Your task to perform on an android device: turn off notifications settings in the gmail app Image 0: 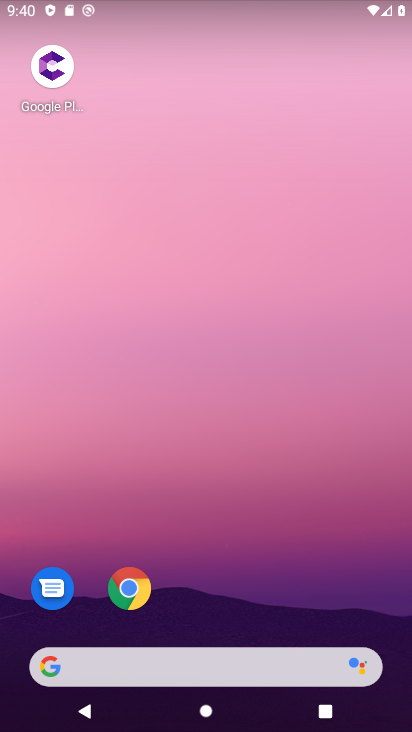
Step 0: drag from (240, 692) to (237, 258)
Your task to perform on an android device: turn off notifications settings in the gmail app Image 1: 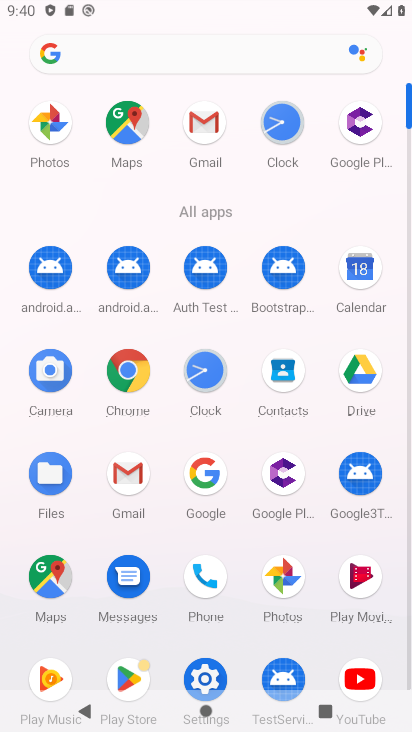
Step 1: click (127, 478)
Your task to perform on an android device: turn off notifications settings in the gmail app Image 2: 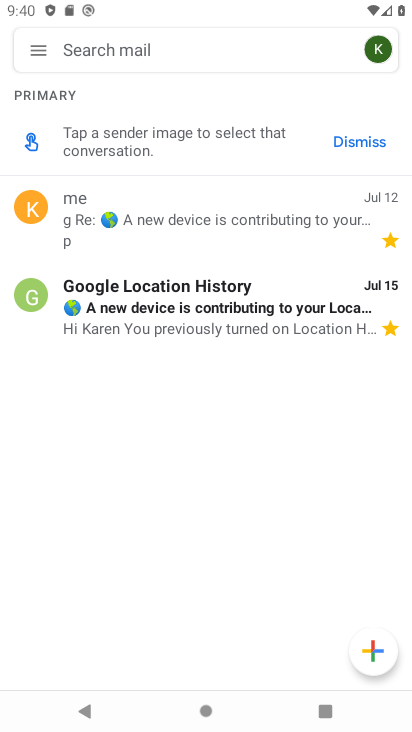
Step 2: click (37, 54)
Your task to perform on an android device: turn off notifications settings in the gmail app Image 3: 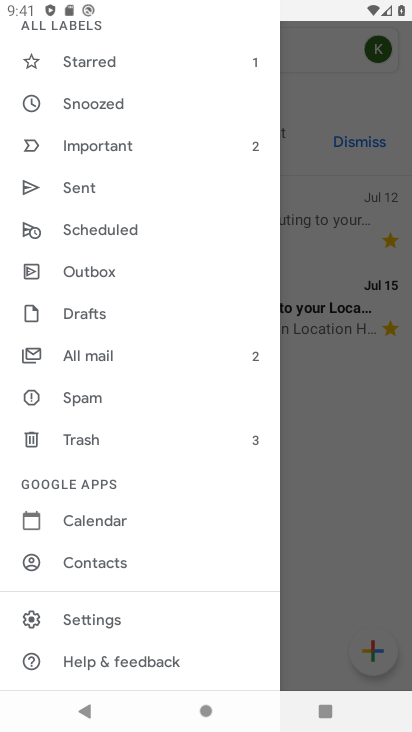
Step 3: click (85, 617)
Your task to perform on an android device: turn off notifications settings in the gmail app Image 4: 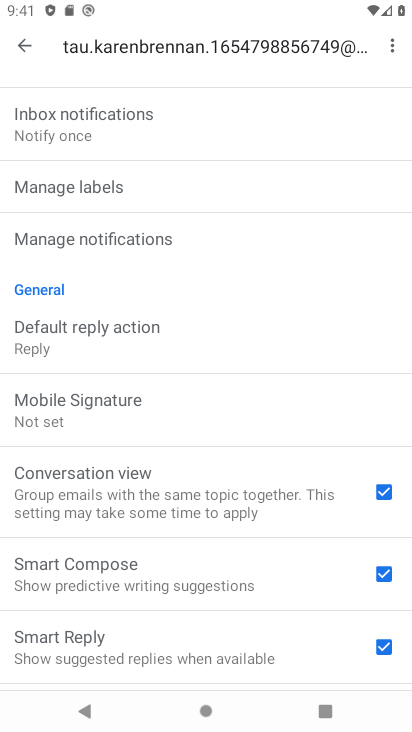
Step 4: drag from (214, 144) to (214, 250)
Your task to perform on an android device: turn off notifications settings in the gmail app Image 5: 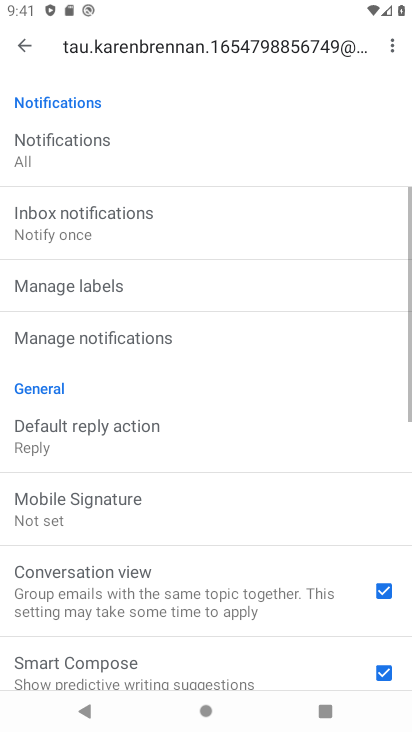
Step 5: drag from (213, 444) to (207, 548)
Your task to perform on an android device: turn off notifications settings in the gmail app Image 6: 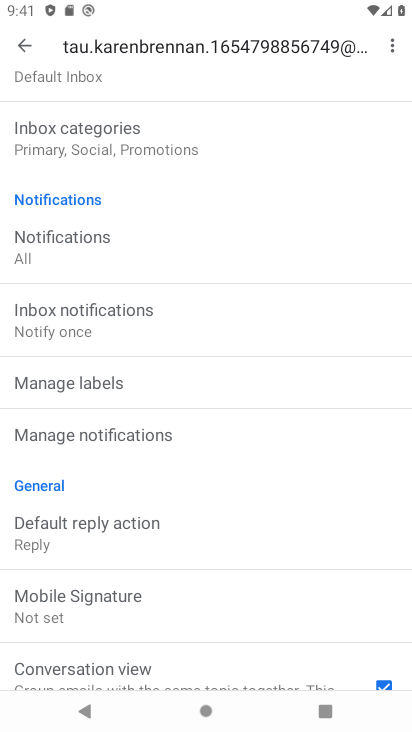
Step 6: click (73, 238)
Your task to perform on an android device: turn off notifications settings in the gmail app Image 7: 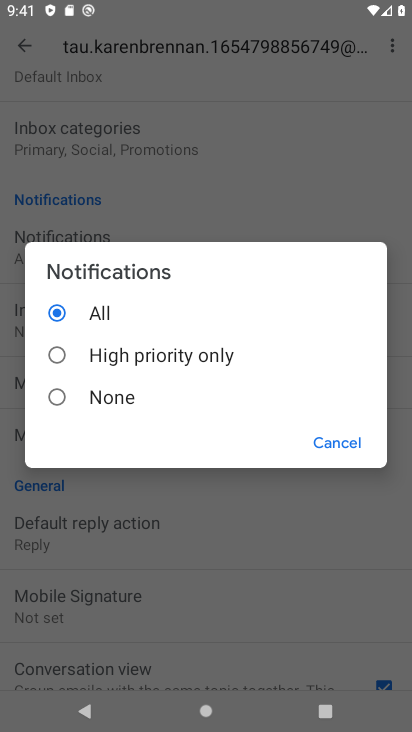
Step 7: click (56, 397)
Your task to perform on an android device: turn off notifications settings in the gmail app Image 8: 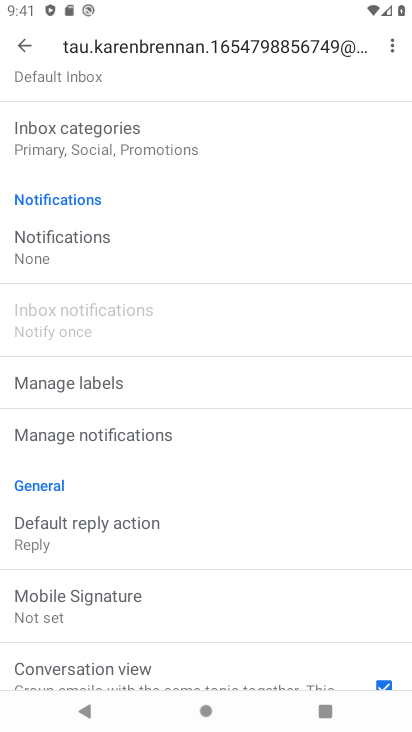
Step 8: task complete